Your task to perform on an android device: Show me recent news Image 0: 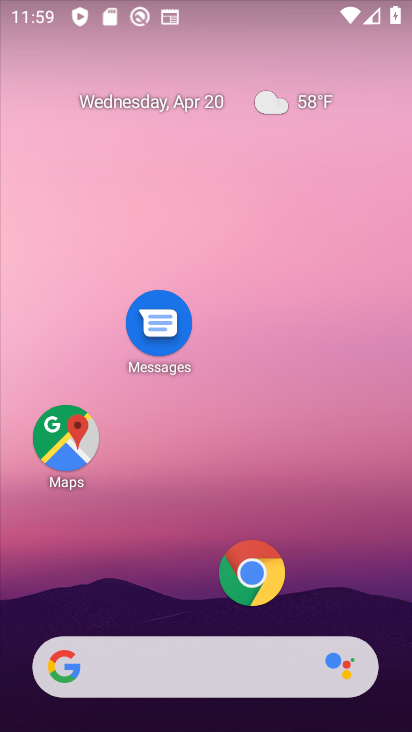
Step 0: drag from (174, 570) to (171, 22)
Your task to perform on an android device: Show me recent news Image 1: 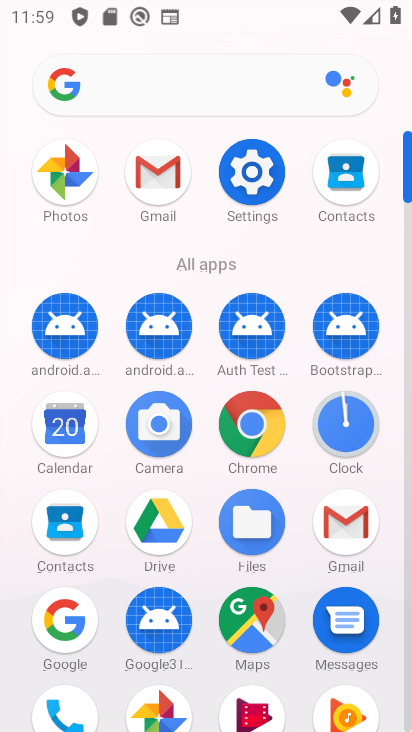
Step 1: click (68, 614)
Your task to perform on an android device: Show me recent news Image 2: 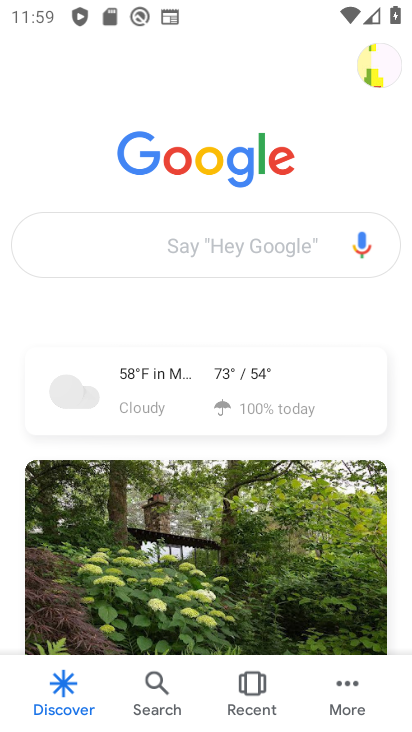
Step 2: click (193, 244)
Your task to perform on an android device: Show me recent news Image 3: 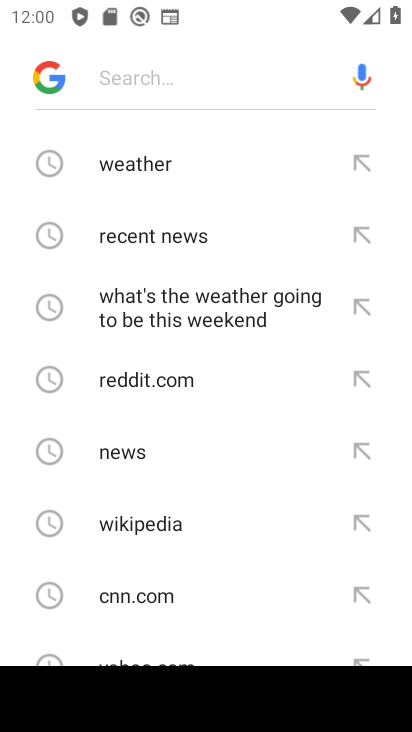
Step 3: click (172, 239)
Your task to perform on an android device: Show me recent news Image 4: 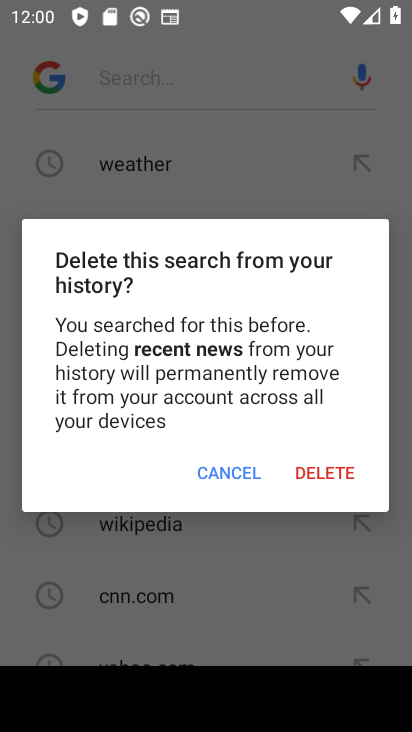
Step 4: click (253, 470)
Your task to perform on an android device: Show me recent news Image 5: 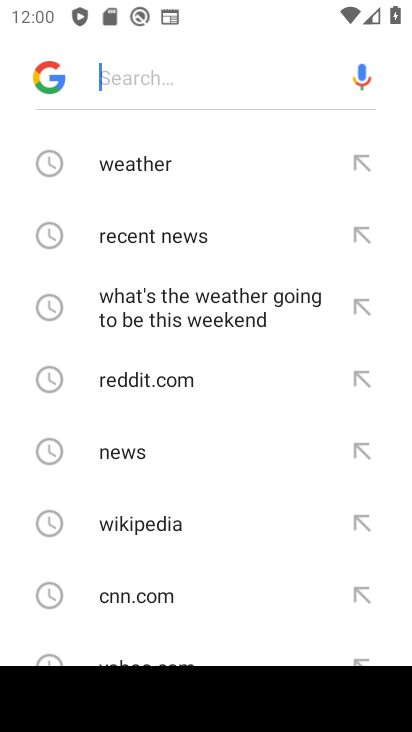
Step 5: click (161, 224)
Your task to perform on an android device: Show me recent news Image 6: 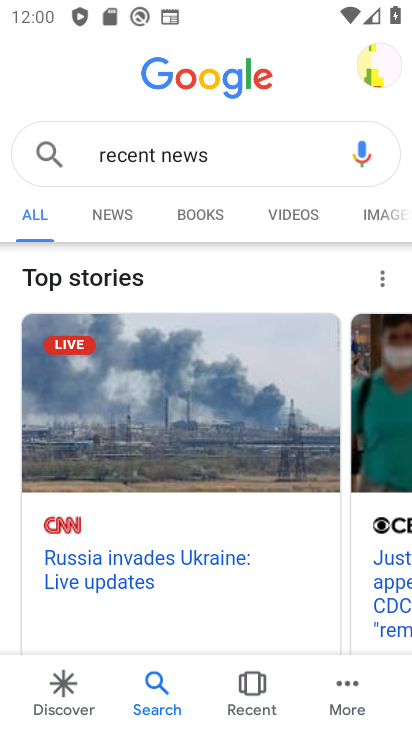
Step 6: task complete